Your task to perform on an android device: Open eBay Image 0: 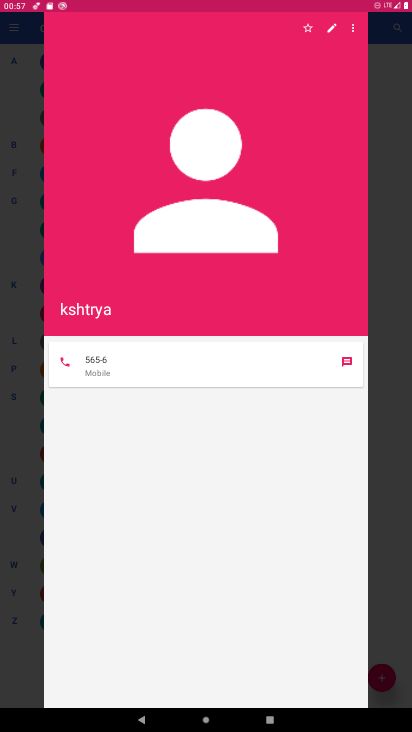
Step 0: press home button
Your task to perform on an android device: Open eBay Image 1: 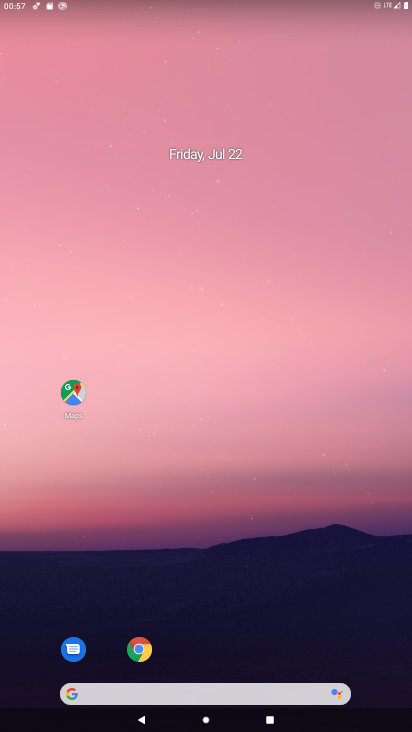
Step 1: click (139, 649)
Your task to perform on an android device: Open eBay Image 2: 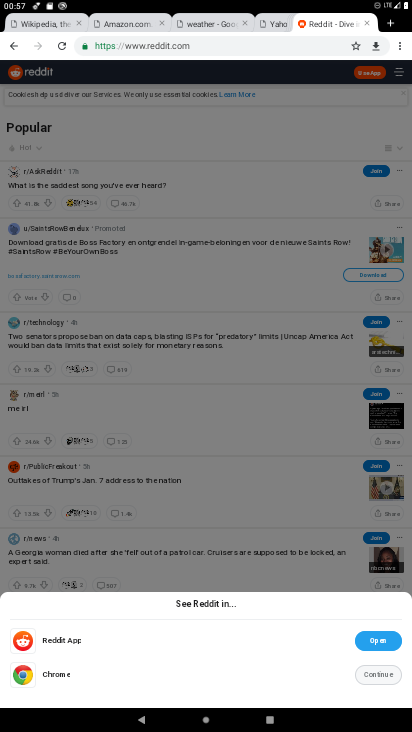
Step 2: click (400, 48)
Your task to perform on an android device: Open eBay Image 3: 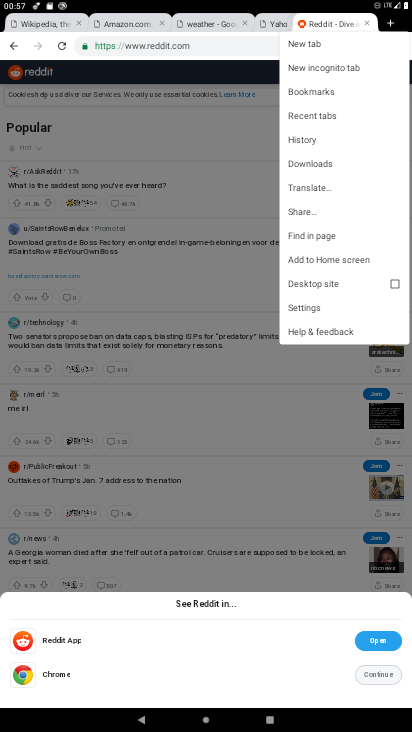
Step 3: click (319, 44)
Your task to perform on an android device: Open eBay Image 4: 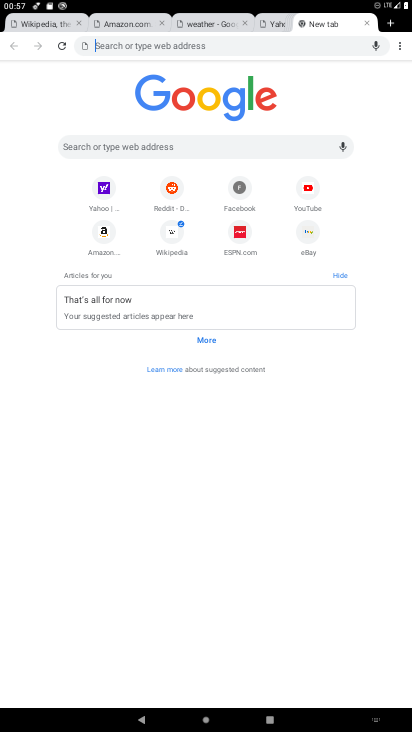
Step 4: click (312, 233)
Your task to perform on an android device: Open eBay Image 5: 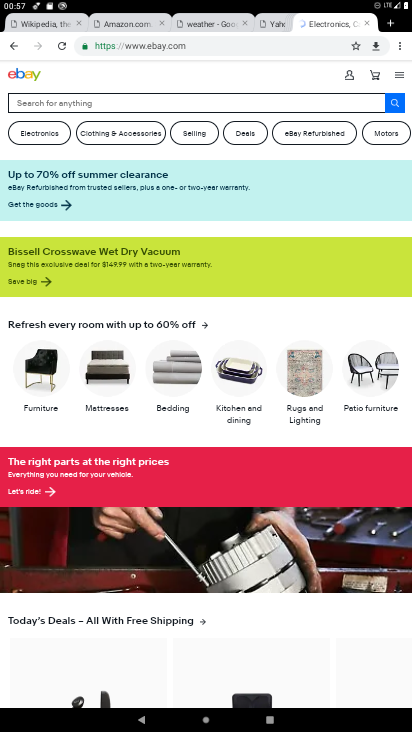
Step 5: task complete